Your task to perform on an android device: Look up the best rated bike on Walmart Image 0: 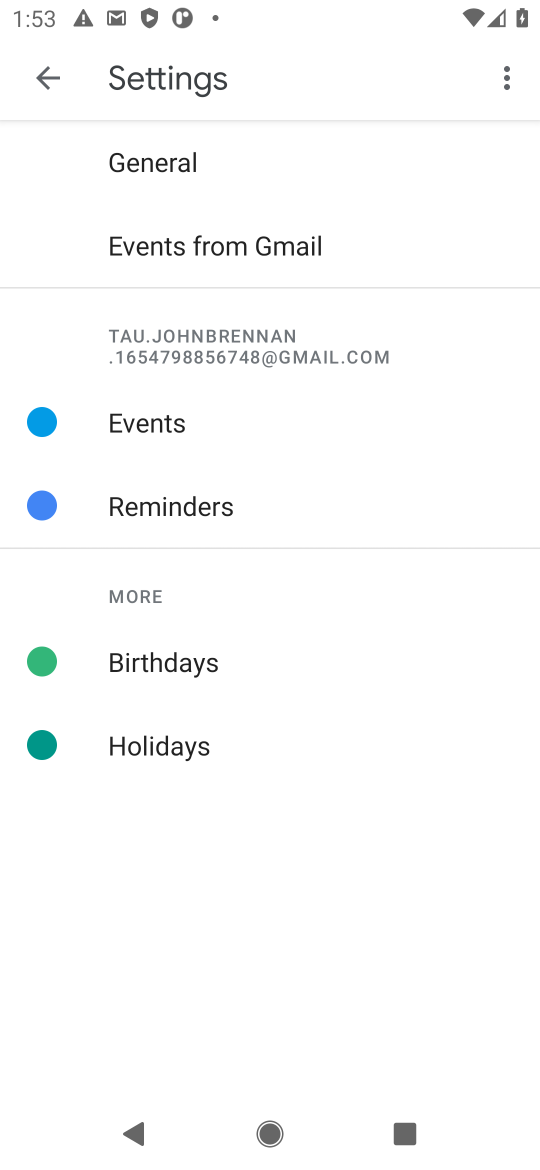
Step 0: press home button
Your task to perform on an android device: Look up the best rated bike on Walmart Image 1: 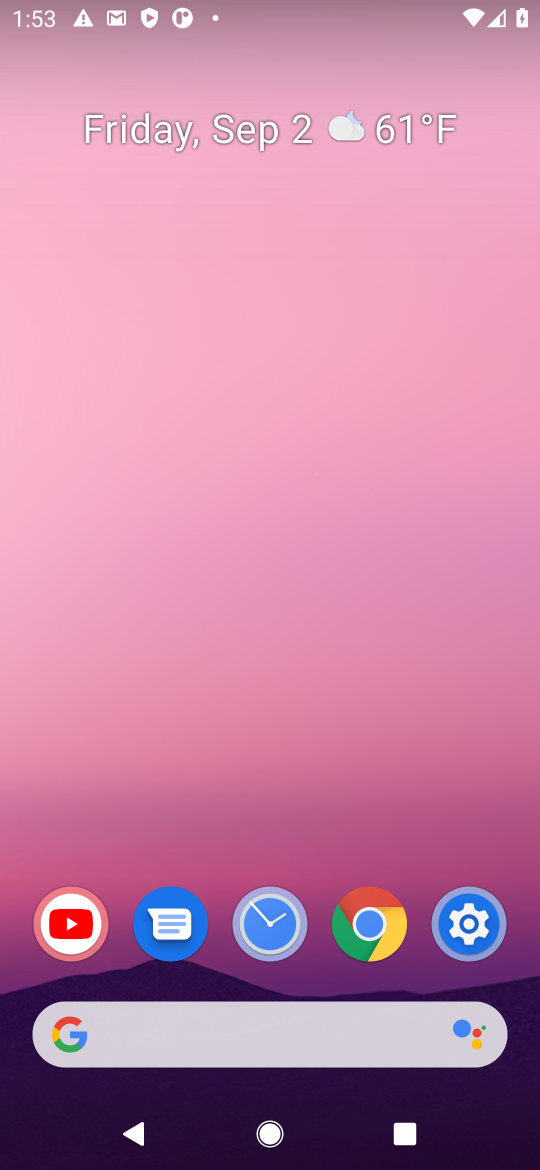
Step 1: click (410, 1034)
Your task to perform on an android device: Look up the best rated bike on Walmart Image 2: 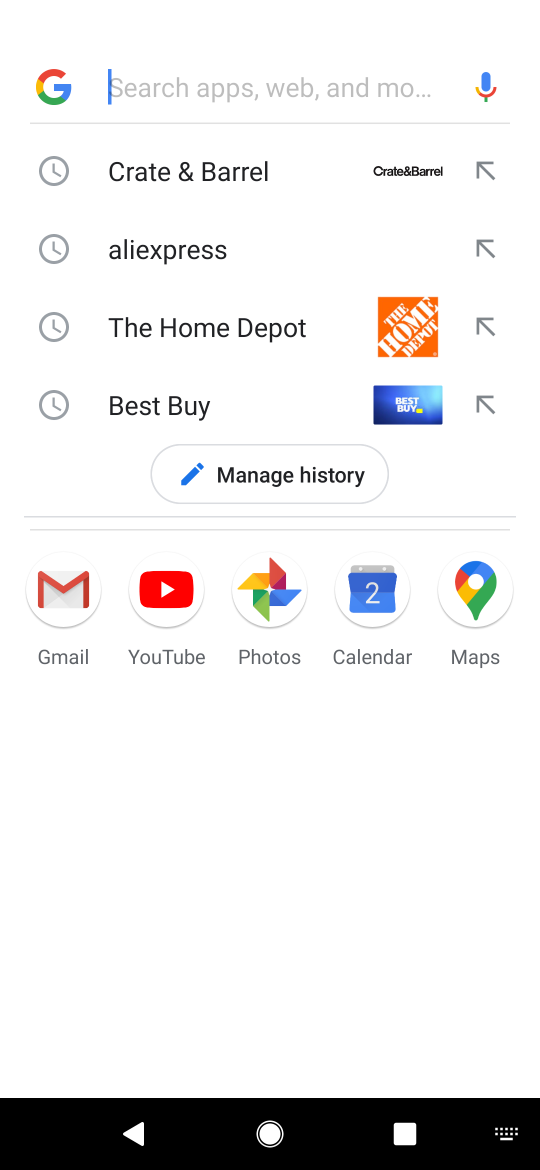
Step 2: press enter
Your task to perform on an android device: Look up the best rated bike on Walmart Image 3: 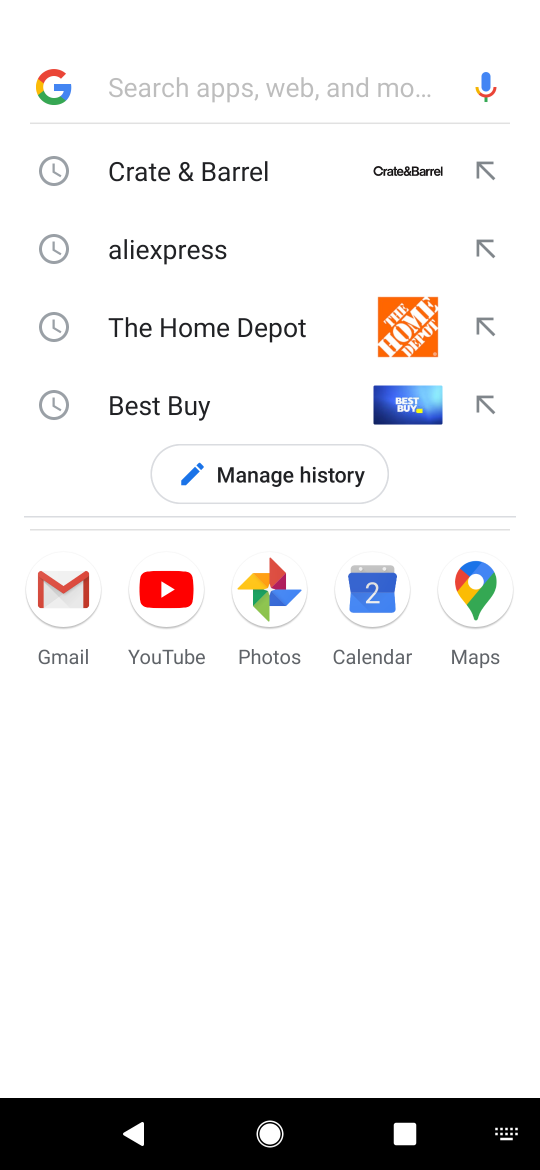
Step 3: type "walmart"
Your task to perform on an android device: Look up the best rated bike on Walmart Image 4: 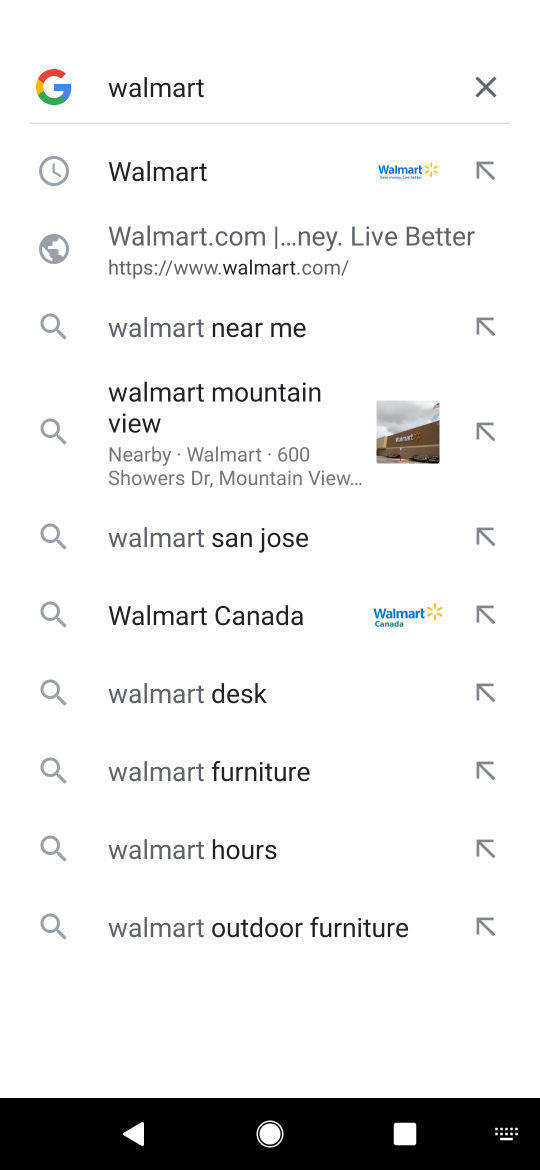
Step 4: click (208, 177)
Your task to perform on an android device: Look up the best rated bike on Walmart Image 5: 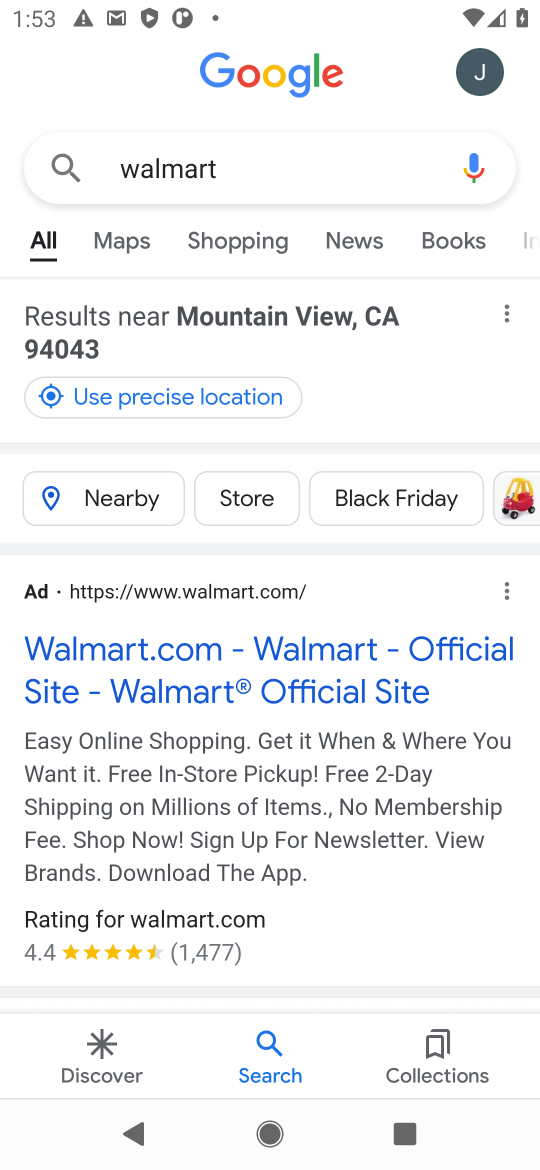
Step 5: click (368, 693)
Your task to perform on an android device: Look up the best rated bike on Walmart Image 6: 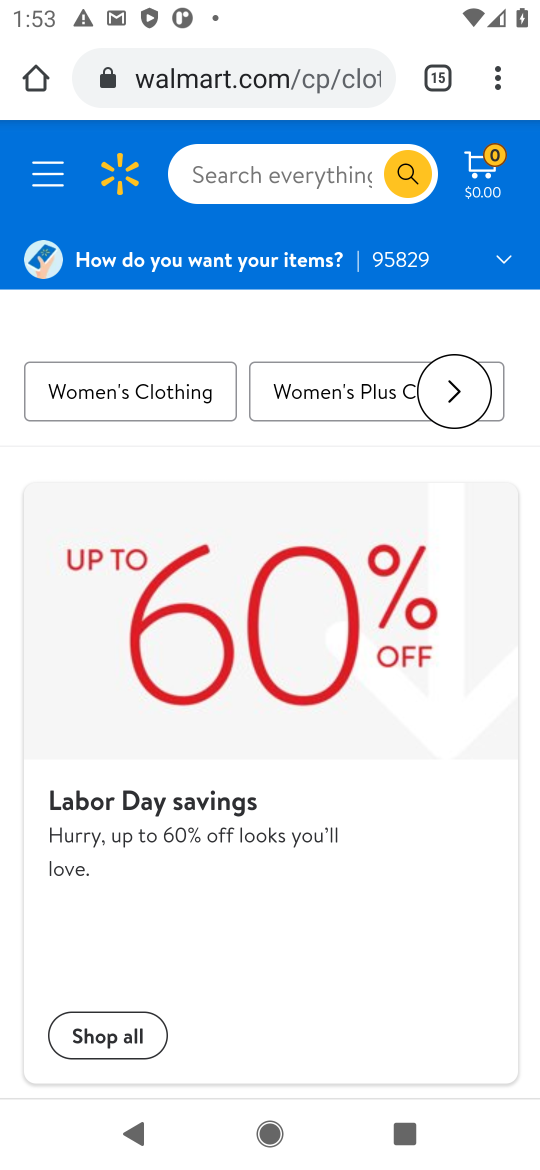
Step 6: click (290, 171)
Your task to perform on an android device: Look up the best rated bike on Walmart Image 7: 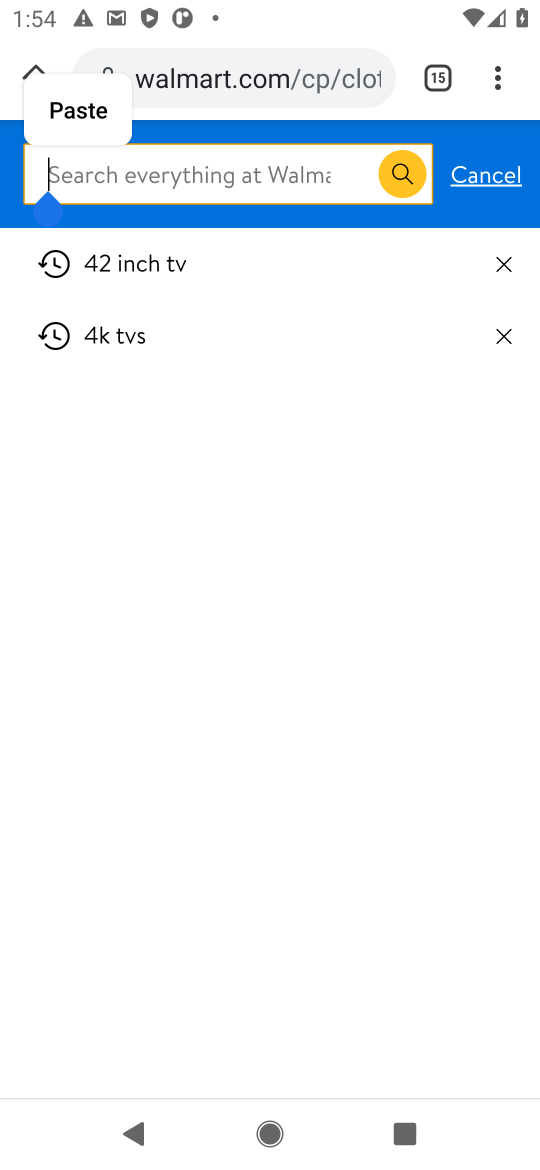
Step 7: type "best rated bike"
Your task to perform on an android device: Look up the best rated bike on Walmart Image 8: 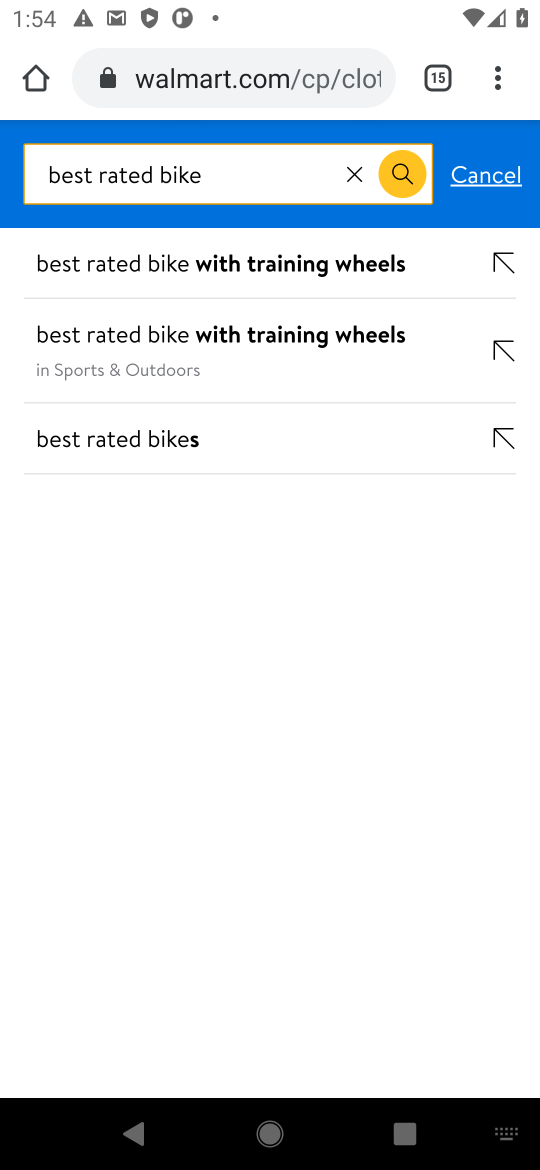
Step 8: click (247, 438)
Your task to perform on an android device: Look up the best rated bike on Walmart Image 9: 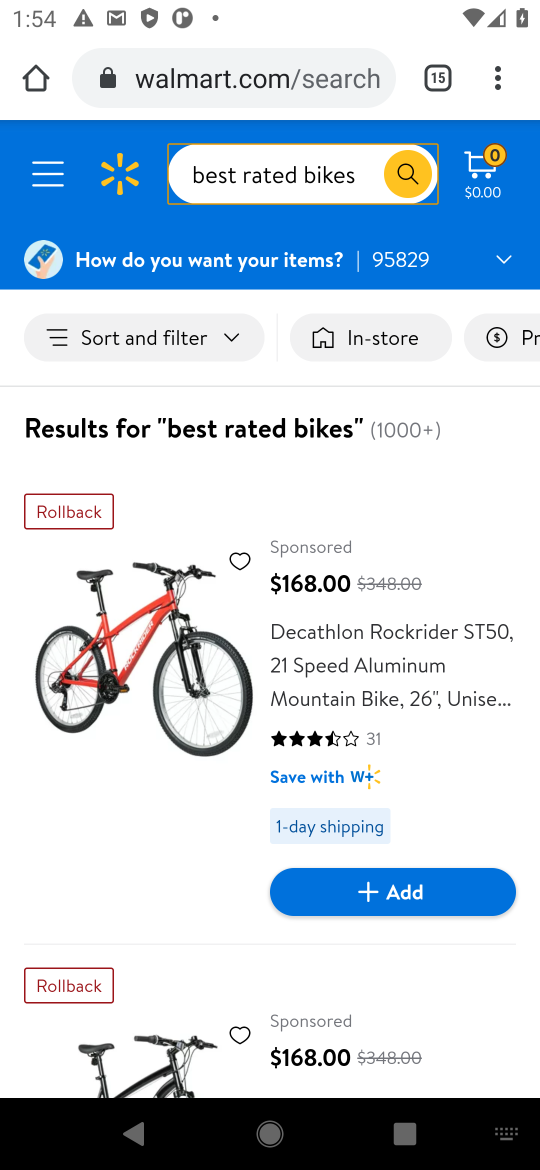
Step 9: task complete